Your task to perform on an android device: turn on priority inbox in the gmail app Image 0: 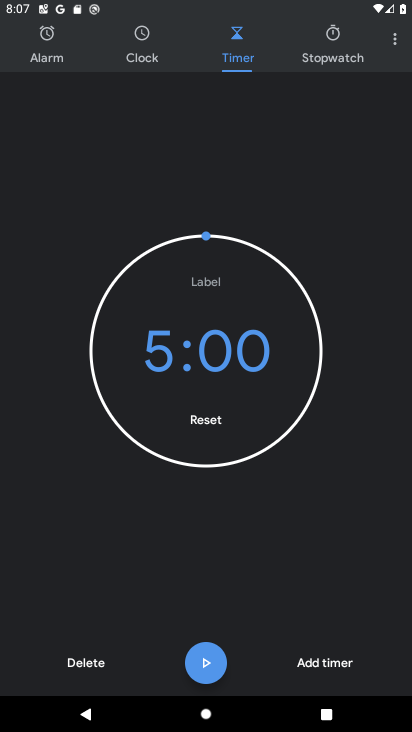
Step 0: press home button
Your task to perform on an android device: turn on priority inbox in the gmail app Image 1: 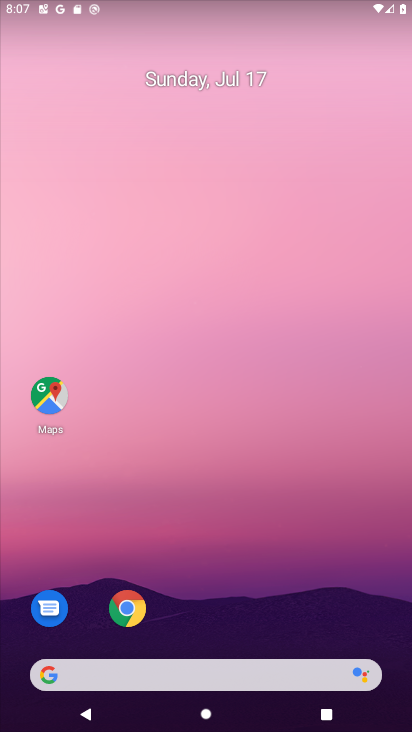
Step 1: drag from (248, 627) to (245, 182)
Your task to perform on an android device: turn on priority inbox in the gmail app Image 2: 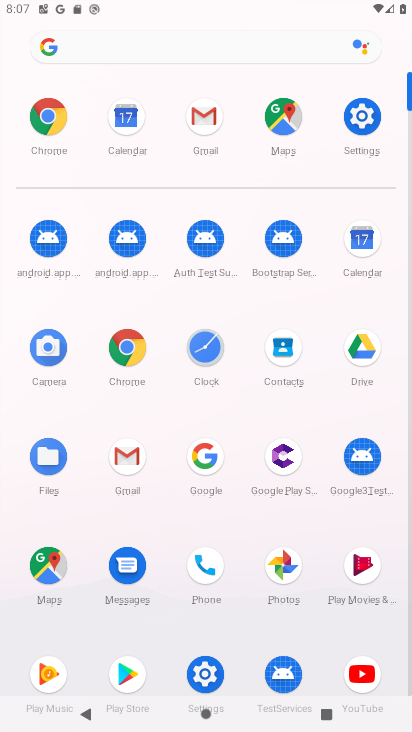
Step 2: click (208, 134)
Your task to perform on an android device: turn on priority inbox in the gmail app Image 3: 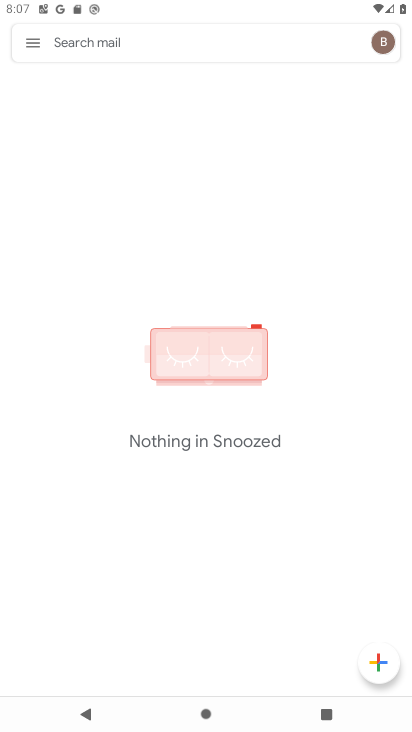
Step 3: click (36, 38)
Your task to perform on an android device: turn on priority inbox in the gmail app Image 4: 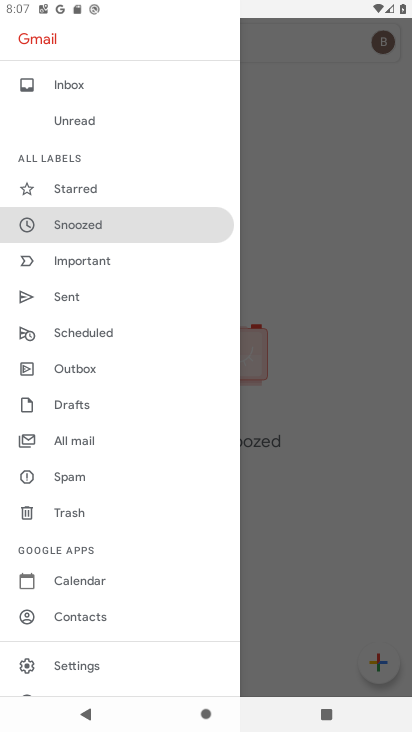
Step 4: click (56, 660)
Your task to perform on an android device: turn on priority inbox in the gmail app Image 5: 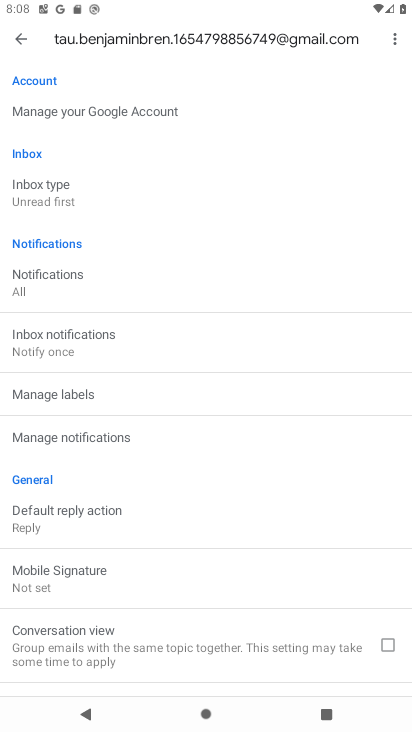
Step 5: click (47, 193)
Your task to perform on an android device: turn on priority inbox in the gmail app Image 6: 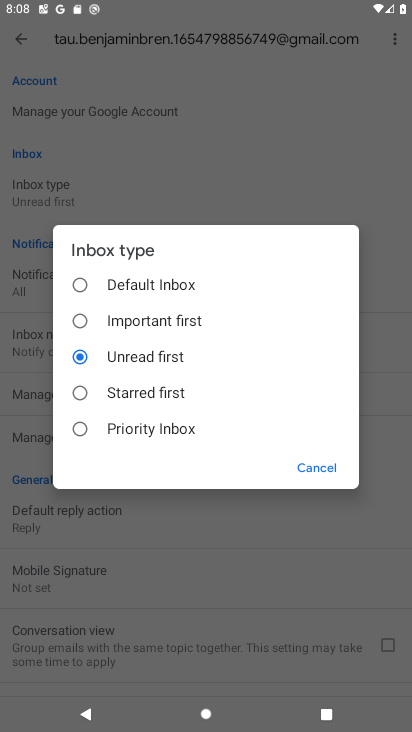
Step 6: click (134, 430)
Your task to perform on an android device: turn on priority inbox in the gmail app Image 7: 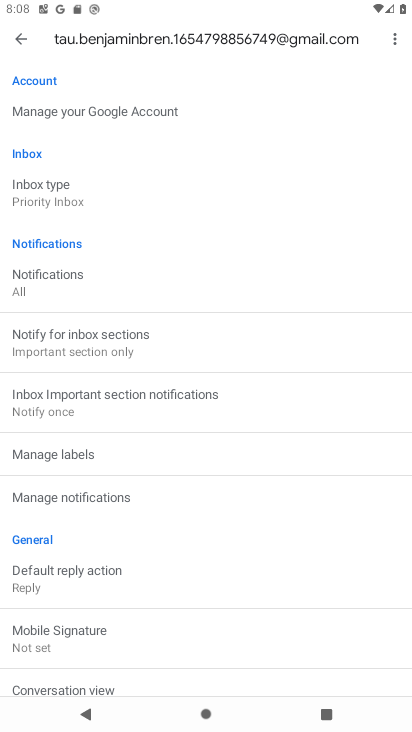
Step 7: task complete